Your task to perform on an android device: install app "eBay: The shopping marketplace" Image 0: 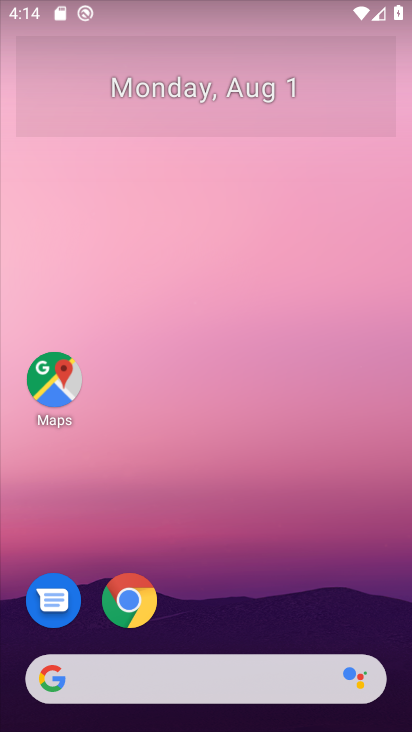
Step 0: drag from (272, 521) to (280, 91)
Your task to perform on an android device: install app "eBay: The shopping marketplace" Image 1: 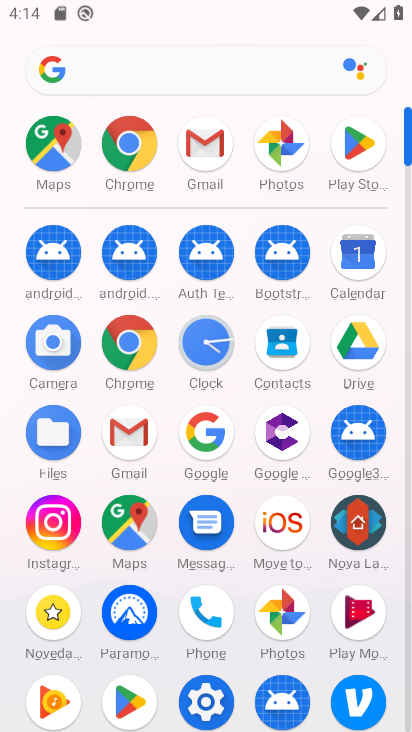
Step 1: click (345, 133)
Your task to perform on an android device: install app "eBay: The shopping marketplace" Image 2: 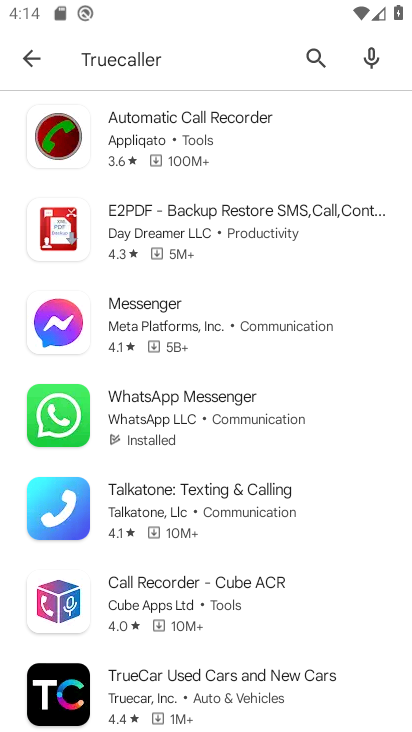
Step 2: click (171, 42)
Your task to perform on an android device: install app "eBay: The shopping marketplace" Image 3: 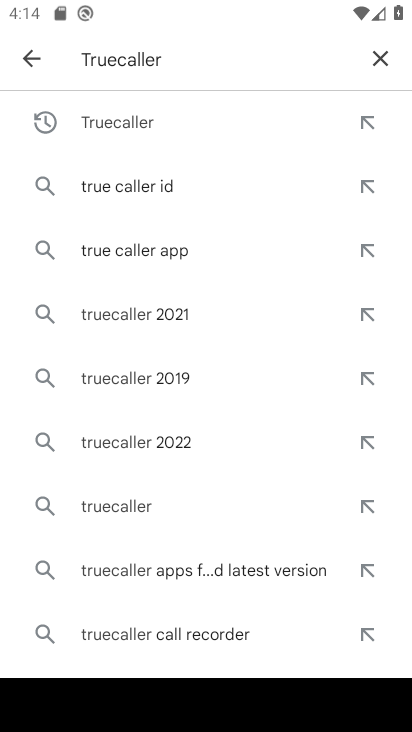
Step 3: click (378, 55)
Your task to perform on an android device: install app "eBay: The shopping marketplace" Image 4: 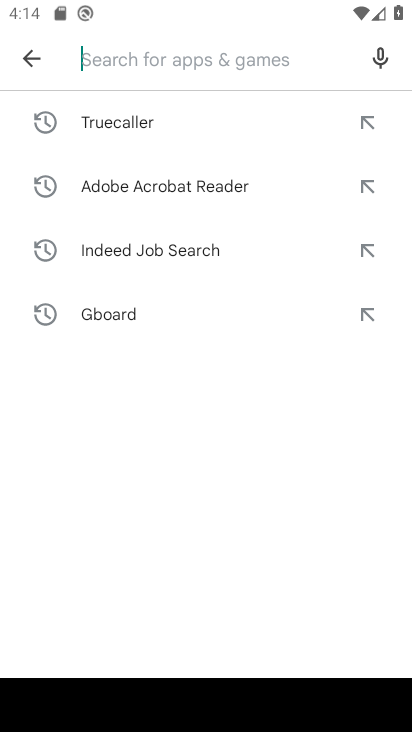
Step 4: type "eBay:l The shopping marketplace"
Your task to perform on an android device: install app "eBay: The shopping marketplace" Image 5: 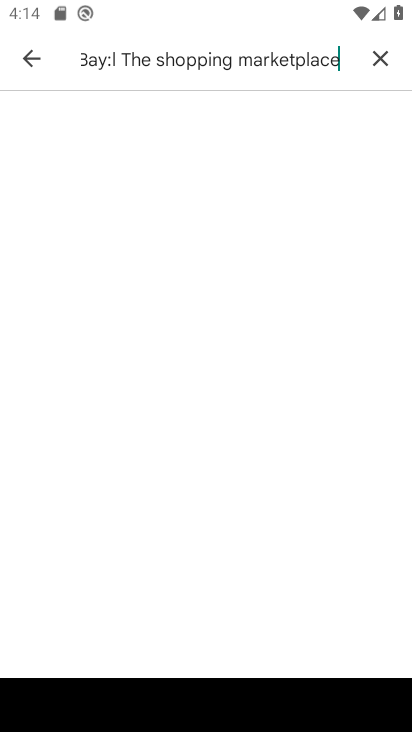
Step 5: press enter
Your task to perform on an android device: install app "eBay: The shopping marketplace" Image 6: 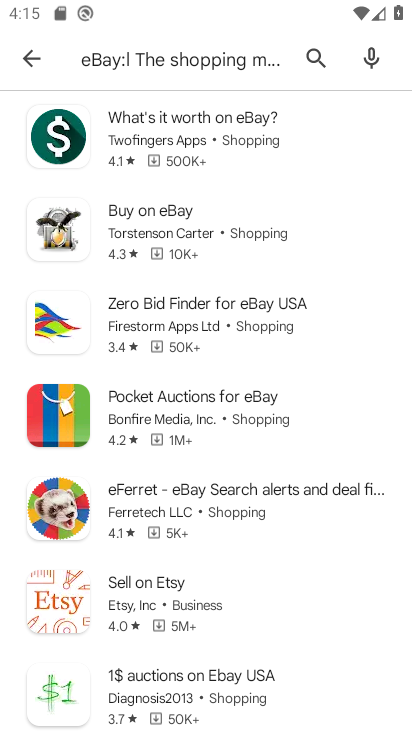
Step 6: task complete